Your task to perform on an android device: change the clock style Image 0: 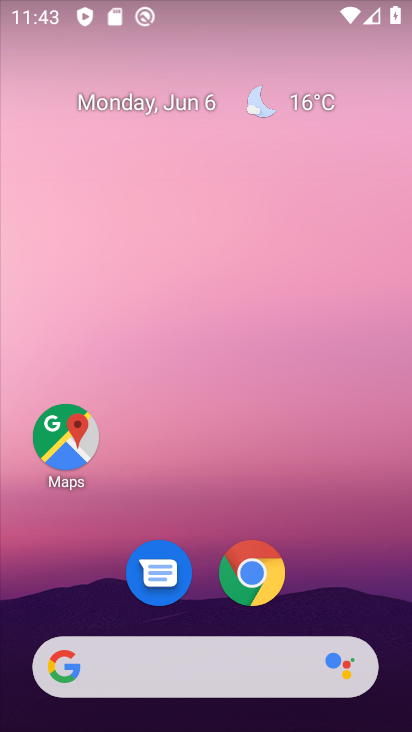
Step 0: drag from (379, 599) to (330, 0)
Your task to perform on an android device: change the clock style Image 1: 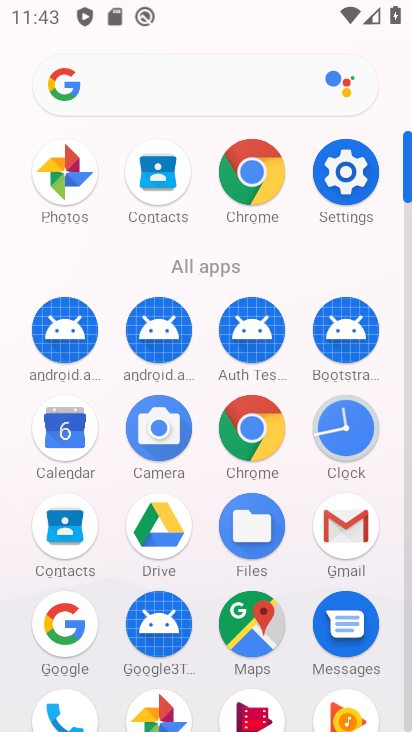
Step 1: click (328, 426)
Your task to perform on an android device: change the clock style Image 2: 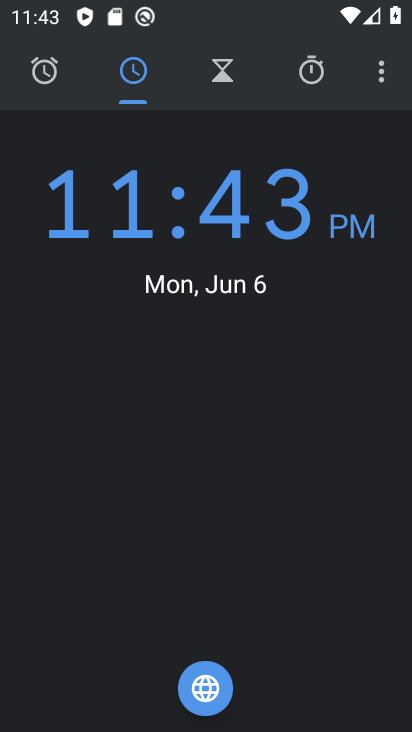
Step 2: click (381, 74)
Your task to perform on an android device: change the clock style Image 3: 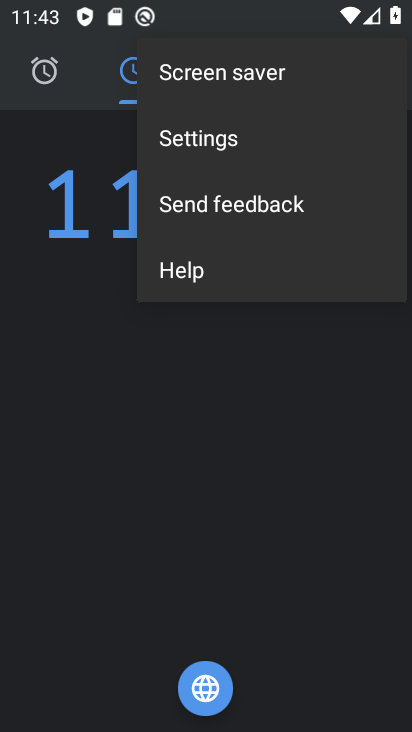
Step 3: click (207, 149)
Your task to perform on an android device: change the clock style Image 4: 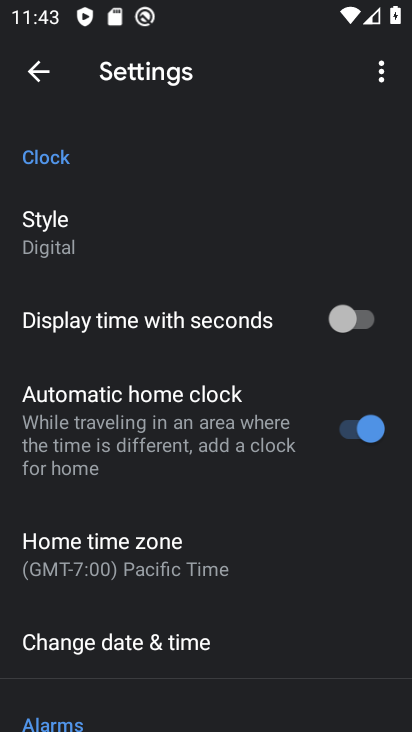
Step 4: click (107, 254)
Your task to perform on an android device: change the clock style Image 5: 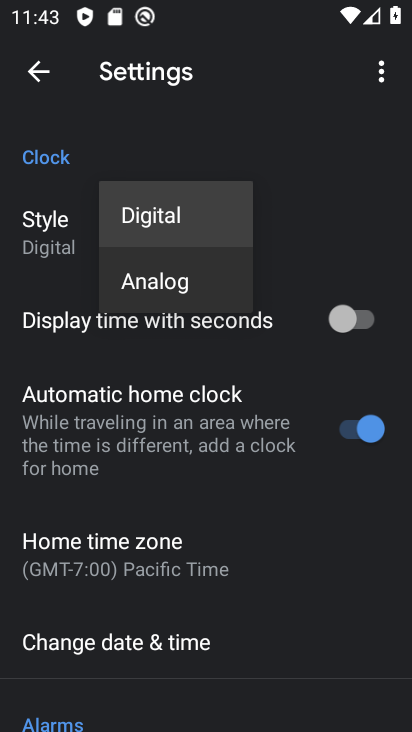
Step 5: click (163, 295)
Your task to perform on an android device: change the clock style Image 6: 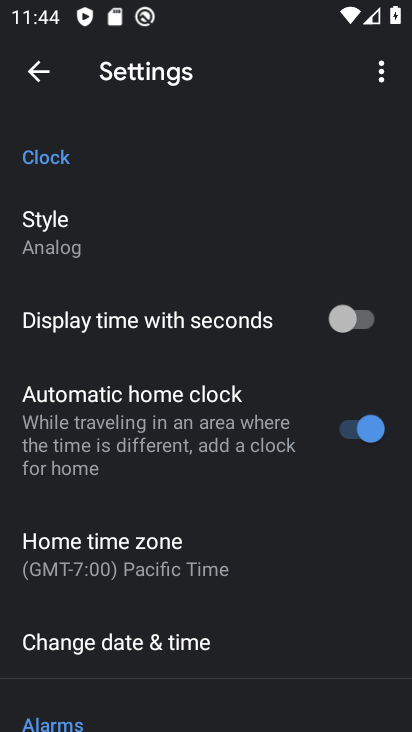
Step 6: task complete